Your task to perform on an android device: What's the weather today? Image 0: 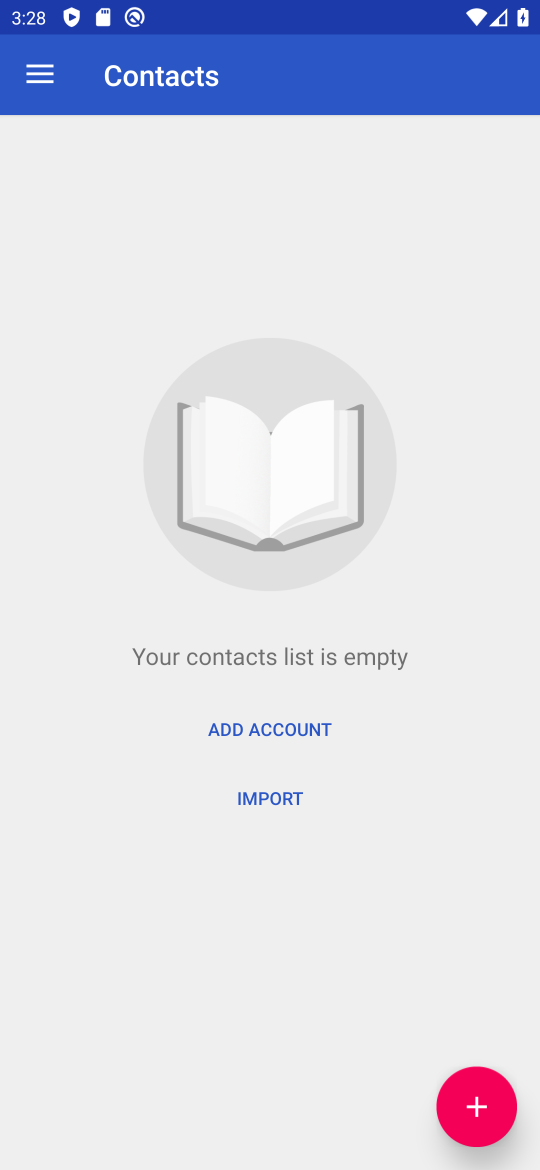
Step 0: press back button
Your task to perform on an android device: What's the weather today? Image 1: 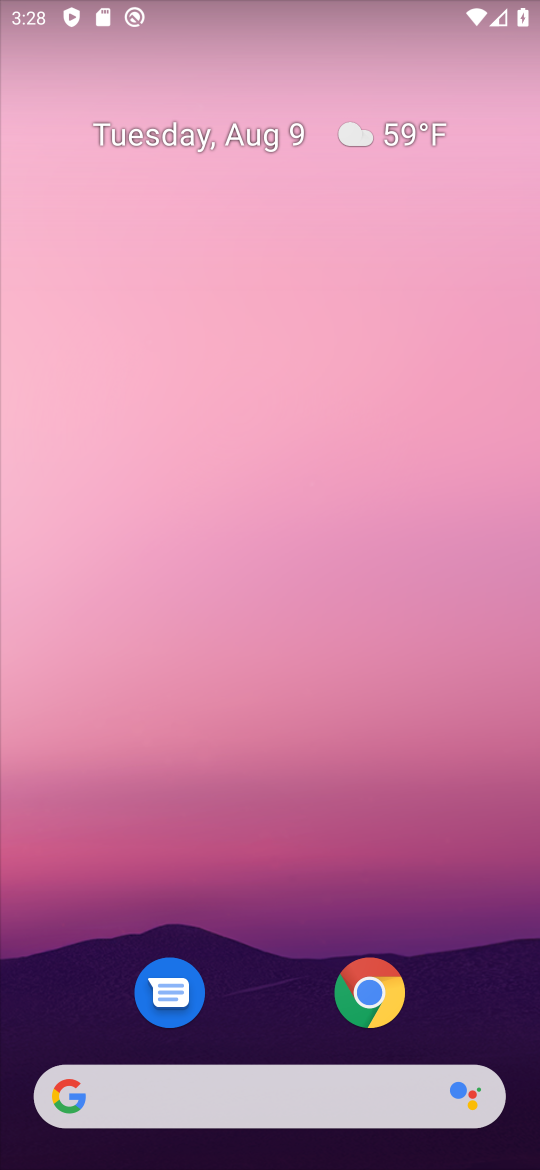
Step 1: click (231, 1104)
Your task to perform on an android device: What's the weather today? Image 2: 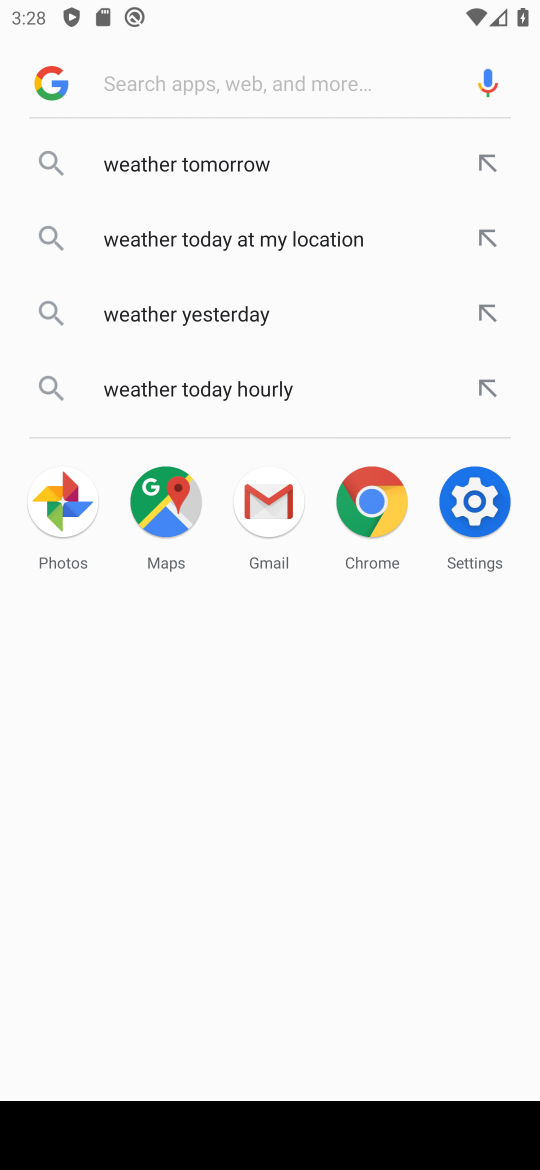
Step 2: click (213, 76)
Your task to perform on an android device: What's the weather today? Image 3: 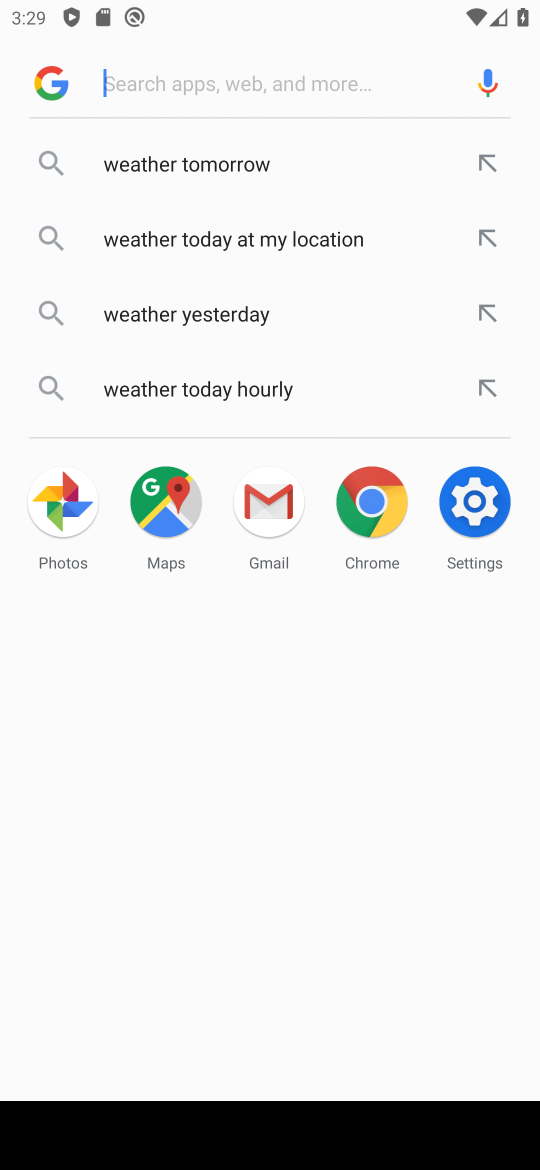
Step 3: type "weather today"
Your task to perform on an android device: What's the weather today? Image 4: 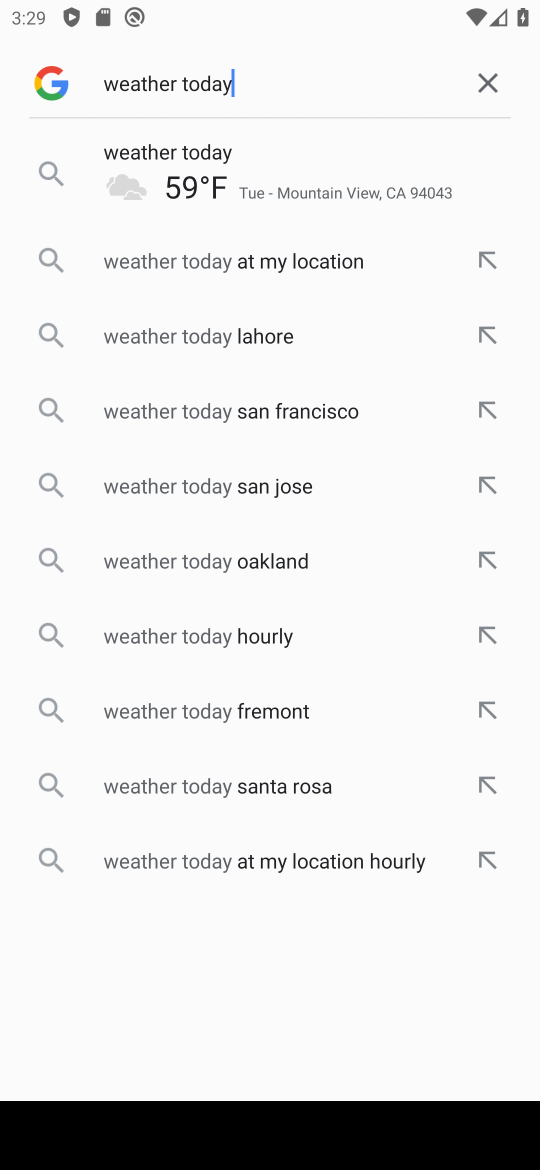
Step 4: click (319, 172)
Your task to perform on an android device: What's the weather today? Image 5: 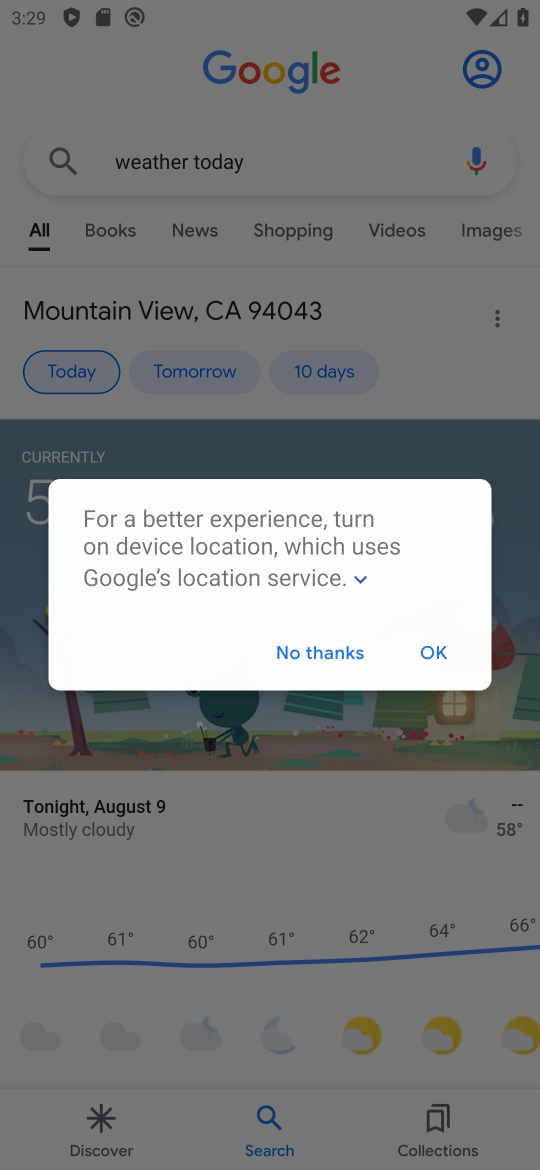
Step 5: task complete